Your task to perform on an android device: open a bookmark in the chrome app Image 0: 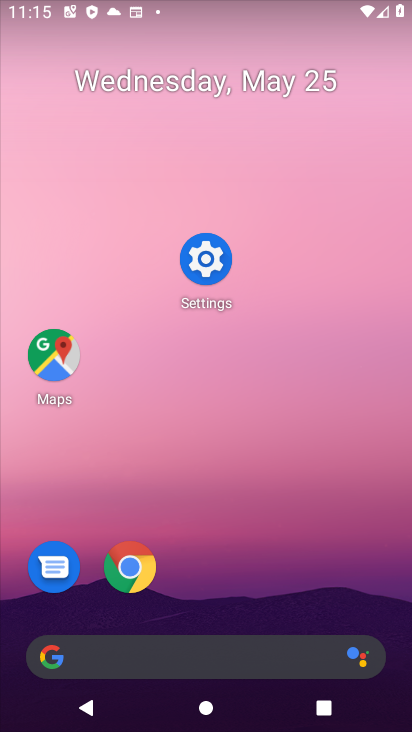
Step 0: click (166, 562)
Your task to perform on an android device: open a bookmark in the chrome app Image 1: 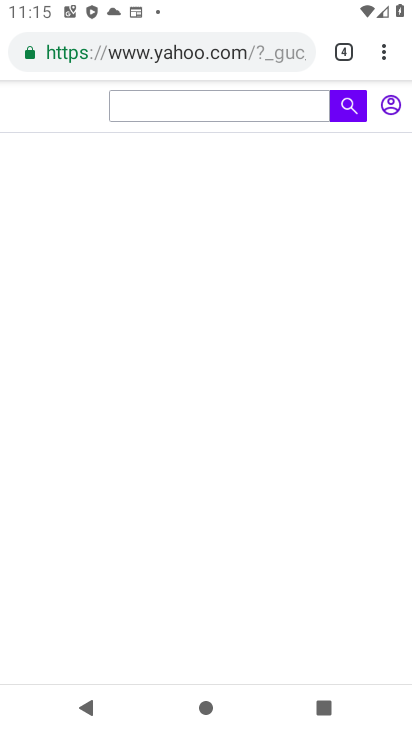
Step 1: click (388, 62)
Your task to perform on an android device: open a bookmark in the chrome app Image 2: 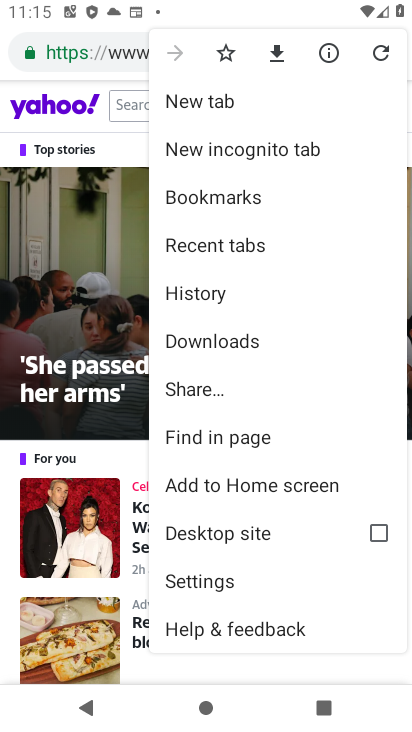
Step 2: click (251, 187)
Your task to perform on an android device: open a bookmark in the chrome app Image 3: 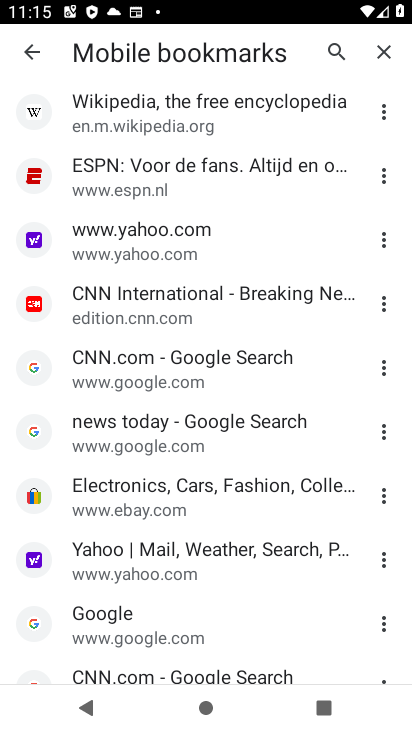
Step 3: click (169, 248)
Your task to perform on an android device: open a bookmark in the chrome app Image 4: 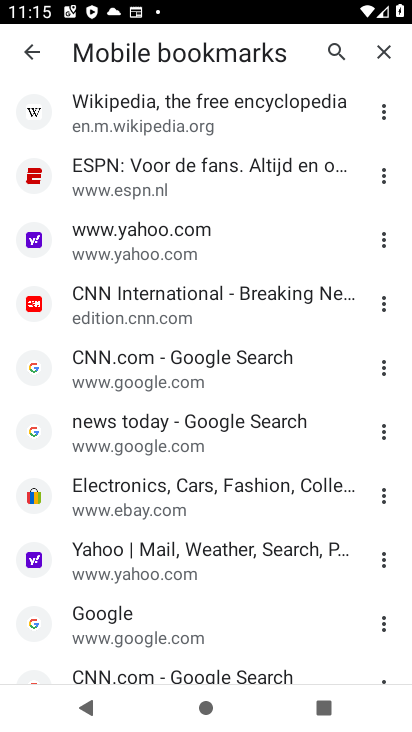
Step 4: task complete